Your task to perform on an android device: What's the weather going to be this weekend? Image 0: 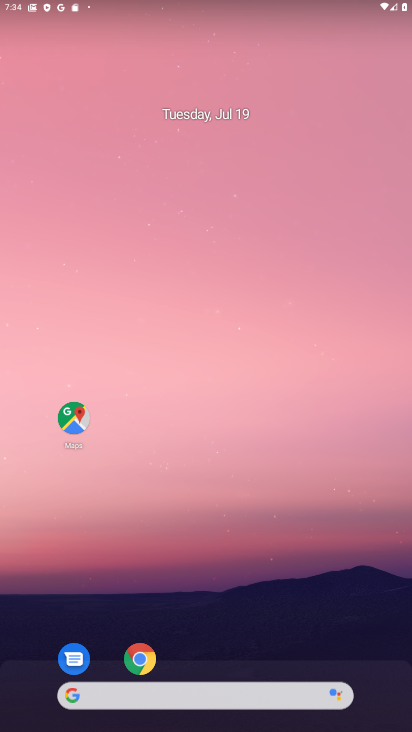
Step 0: click (184, 702)
Your task to perform on an android device: What's the weather going to be this weekend? Image 1: 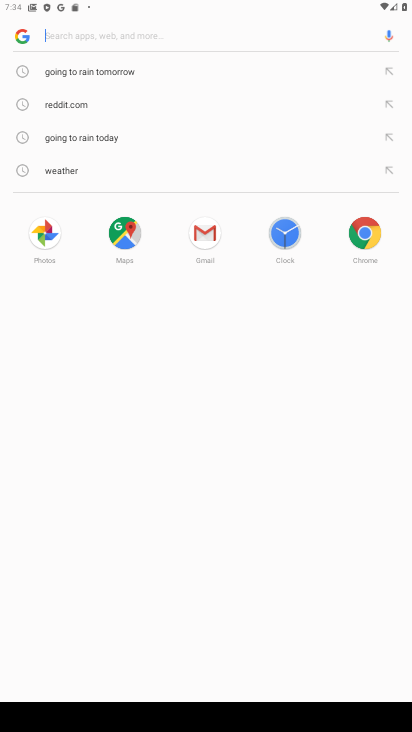
Step 1: type "weather"
Your task to perform on an android device: What's the weather going to be this weekend? Image 2: 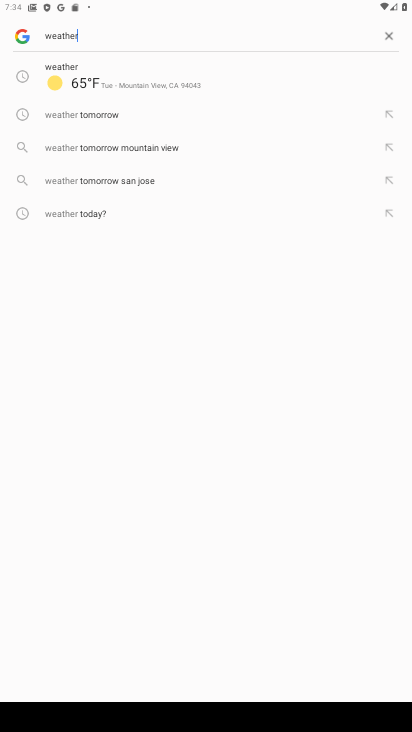
Step 2: click (77, 71)
Your task to perform on an android device: What's the weather going to be this weekend? Image 3: 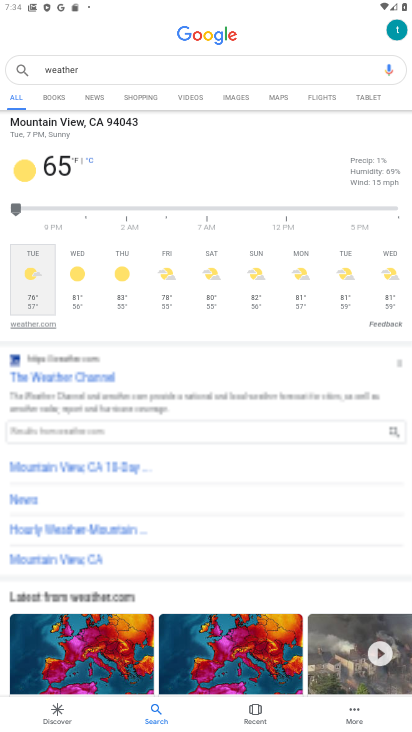
Step 3: click (205, 285)
Your task to perform on an android device: What's the weather going to be this weekend? Image 4: 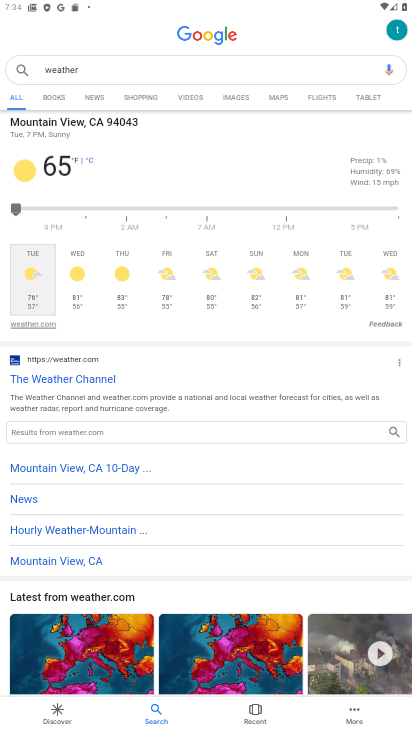
Step 4: click (203, 285)
Your task to perform on an android device: What's the weather going to be this weekend? Image 5: 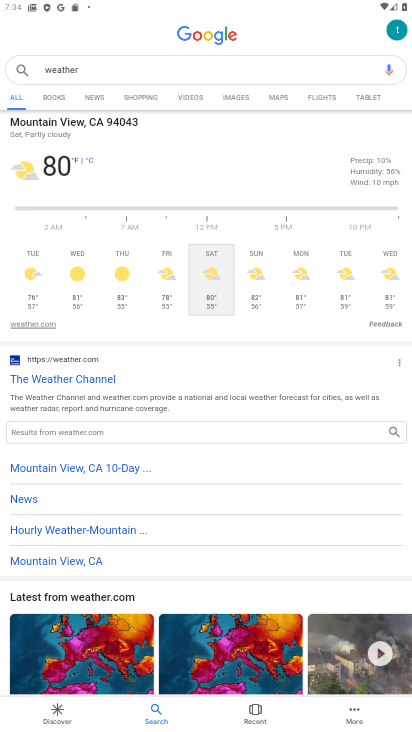
Step 5: task complete